Your task to perform on an android device: Show me productivity apps on the Play Store Image 0: 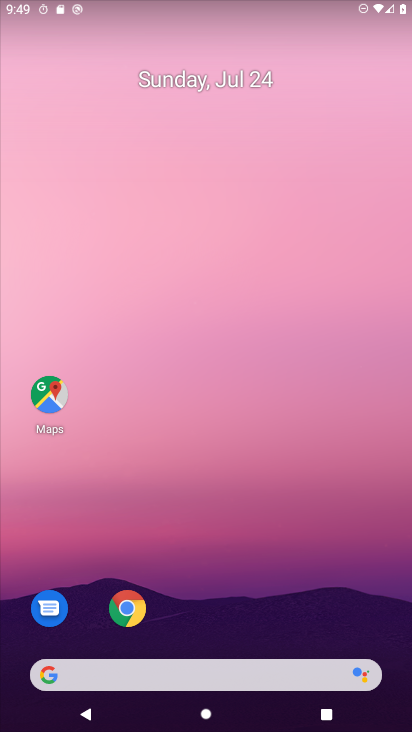
Step 0: drag from (181, 625) to (254, 63)
Your task to perform on an android device: Show me productivity apps on the Play Store Image 1: 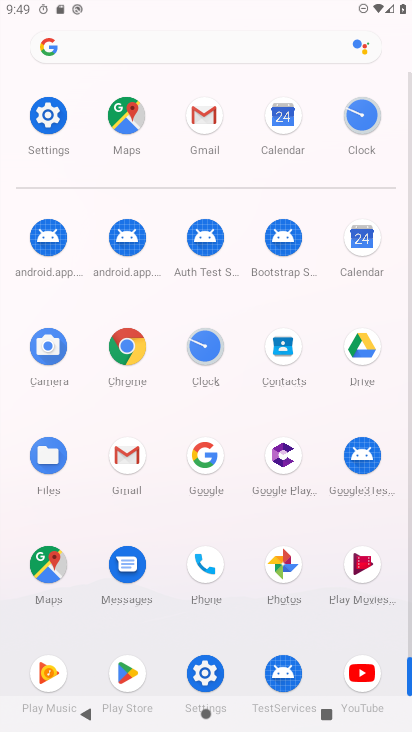
Step 1: click (122, 665)
Your task to perform on an android device: Show me productivity apps on the Play Store Image 2: 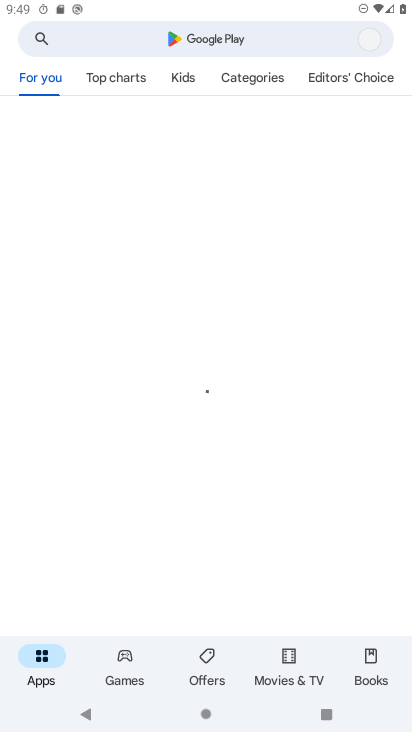
Step 2: task complete